Your task to perform on an android device: Toggle the flashlight Image 0: 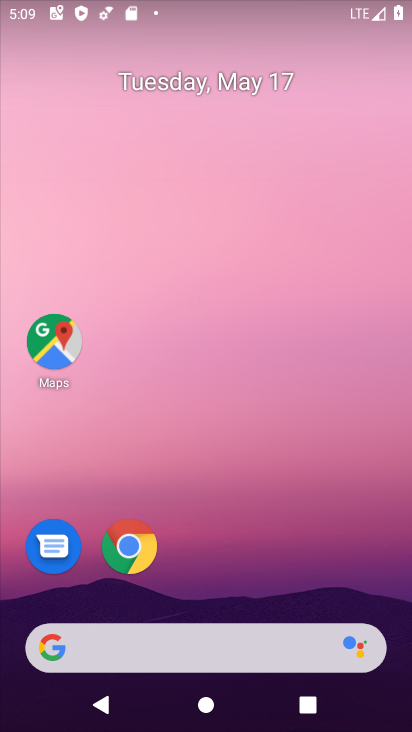
Step 0: drag from (207, 620) to (410, 130)
Your task to perform on an android device: Toggle the flashlight Image 1: 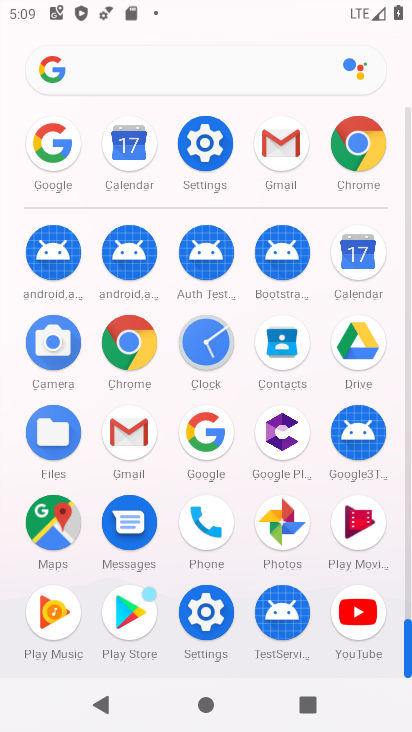
Step 1: click (211, 137)
Your task to perform on an android device: Toggle the flashlight Image 2: 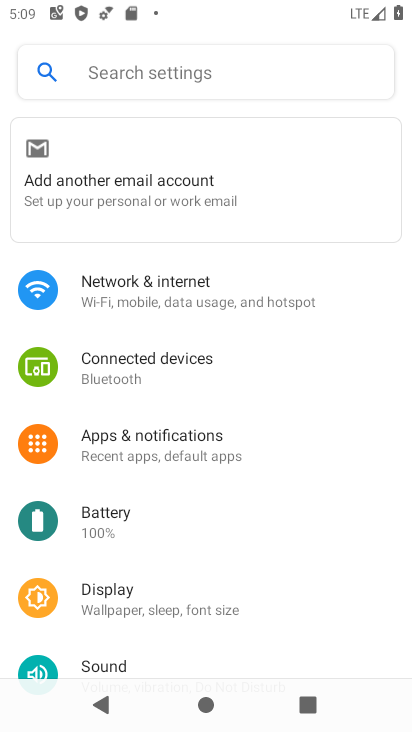
Step 2: task complete